Your task to perform on an android device: delete the emails in spam in the gmail app Image 0: 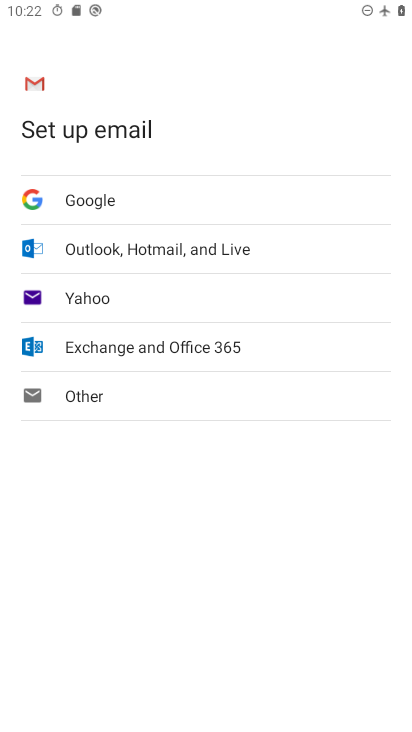
Step 0: drag from (198, 701) to (155, 136)
Your task to perform on an android device: delete the emails in spam in the gmail app Image 1: 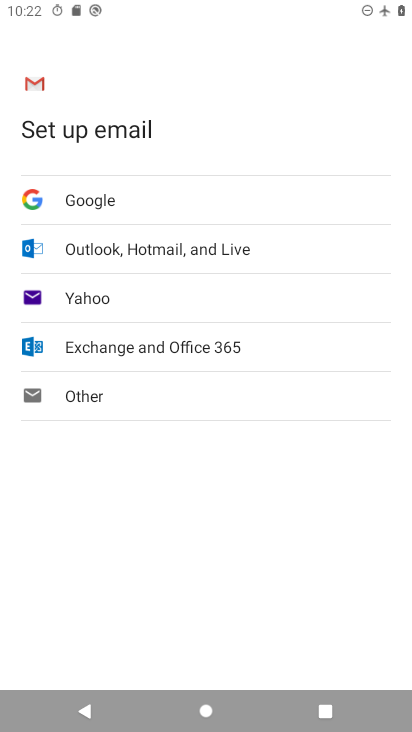
Step 1: press home button
Your task to perform on an android device: delete the emails in spam in the gmail app Image 2: 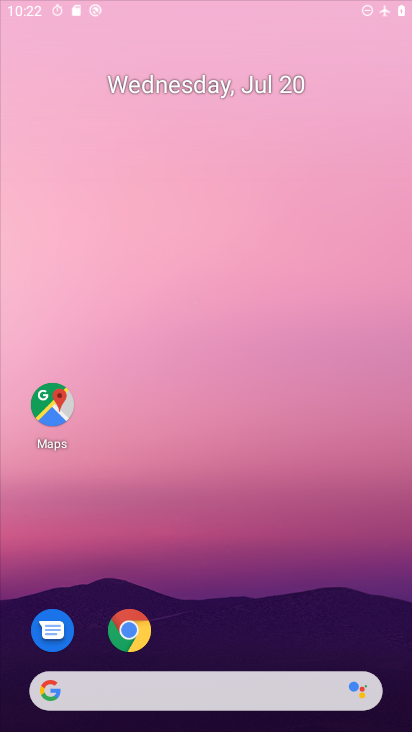
Step 2: drag from (229, 681) to (223, 258)
Your task to perform on an android device: delete the emails in spam in the gmail app Image 3: 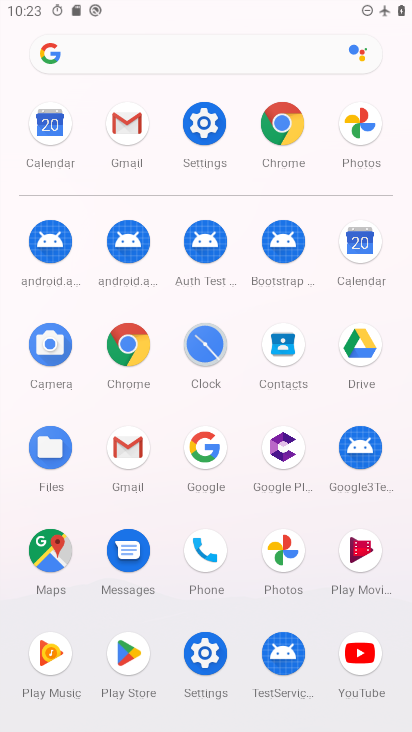
Step 3: click (136, 492)
Your task to perform on an android device: delete the emails in spam in the gmail app Image 4: 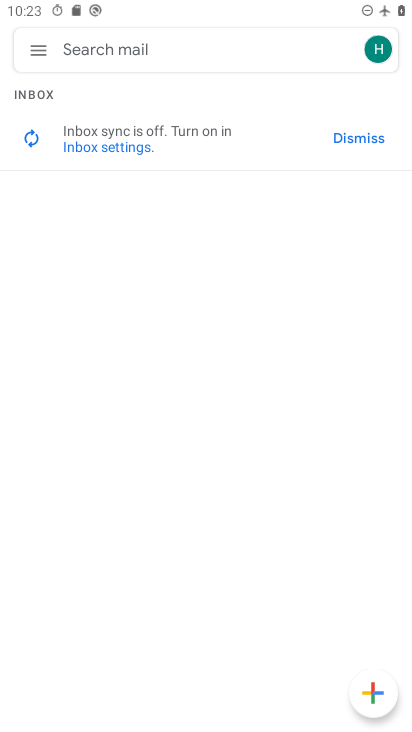
Step 4: click (31, 51)
Your task to perform on an android device: delete the emails in spam in the gmail app Image 5: 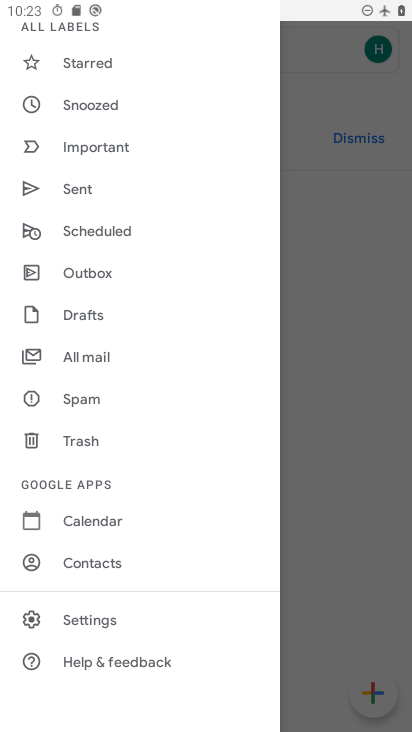
Step 5: task complete